Your task to perform on an android device: Open the calendar and show me this week's events? Image 0: 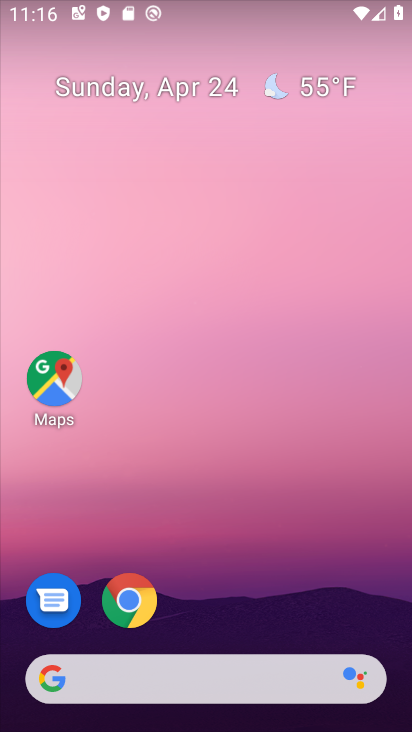
Step 0: click (121, 90)
Your task to perform on an android device: Open the calendar and show me this week's events? Image 1: 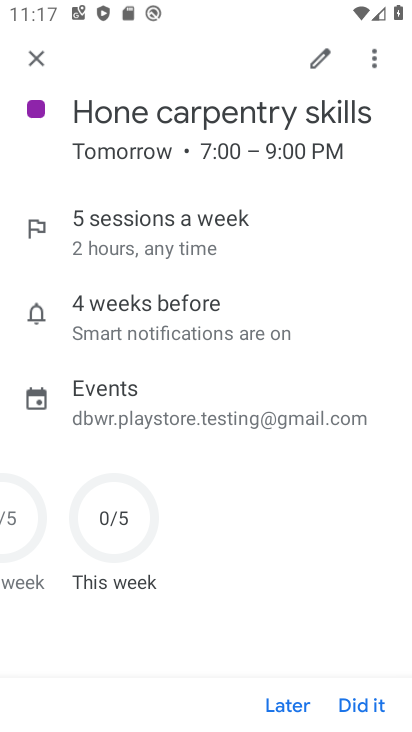
Step 1: click (35, 72)
Your task to perform on an android device: Open the calendar and show me this week's events? Image 2: 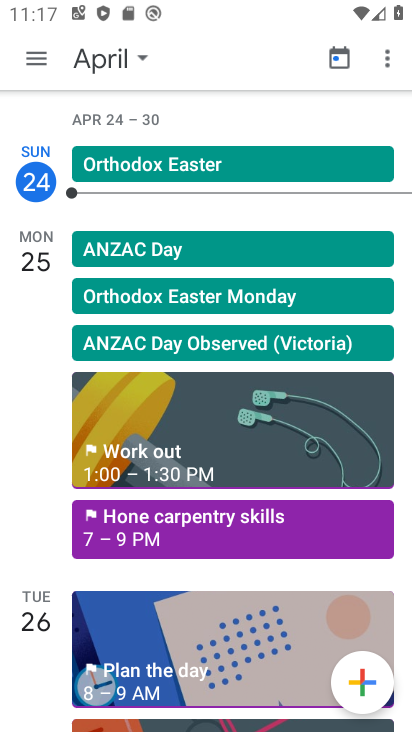
Step 2: click (133, 45)
Your task to perform on an android device: Open the calendar and show me this week's events? Image 3: 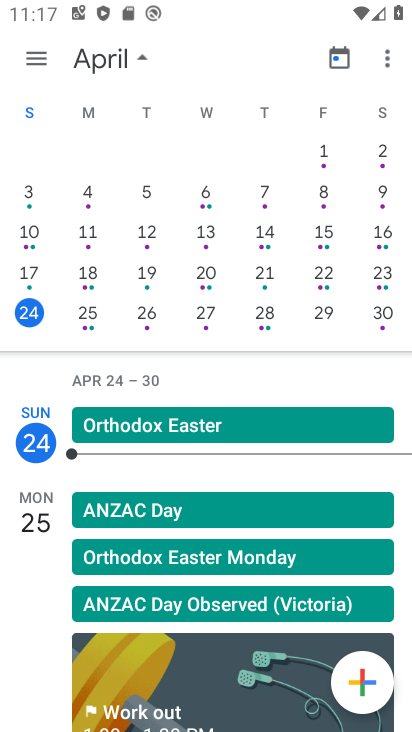
Step 3: click (34, 58)
Your task to perform on an android device: Open the calendar and show me this week's events? Image 4: 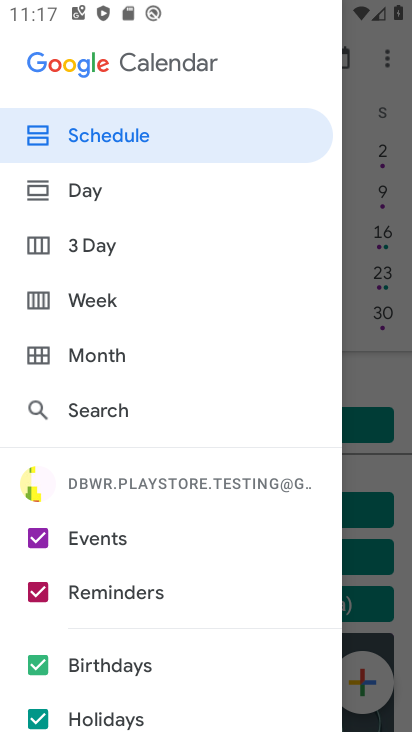
Step 4: click (51, 590)
Your task to perform on an android device: Open the calendar and show me this week's events? Image 5: 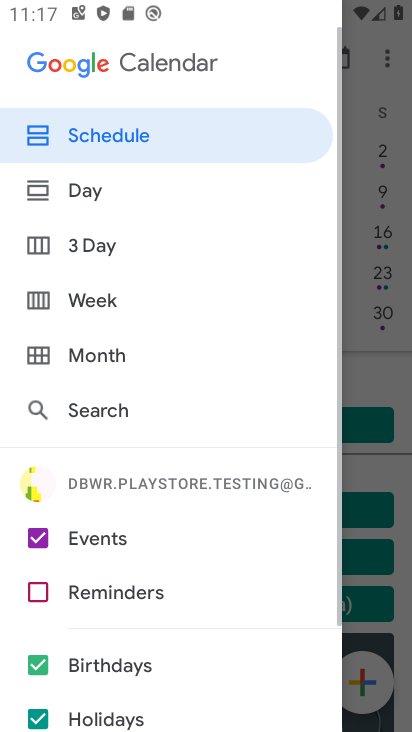
Step 5: click (30, 672)
Your task to perform on an android device: Open the calendar and show me this week's events? Image 6: 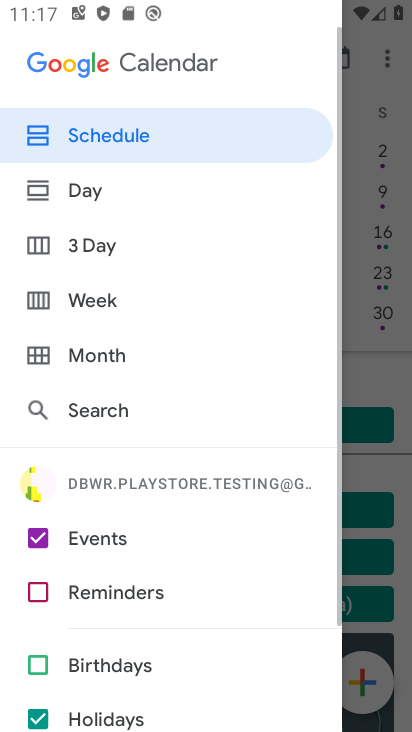
Step 6: click (35, 713)
Your task to perform on an android device: Open the calendar and show me this week's events? Image 7: 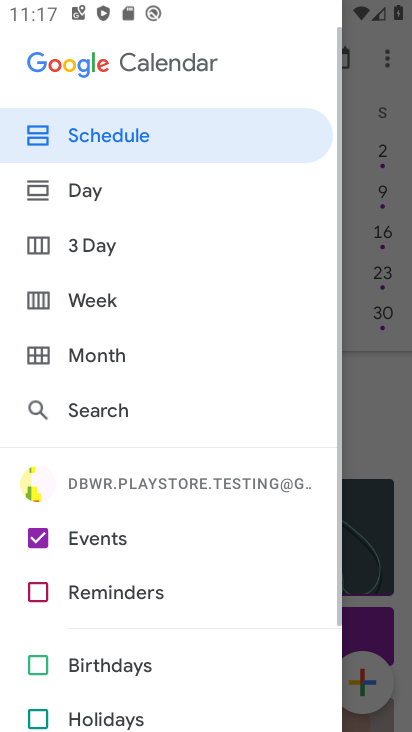
Step 7: click (169, 300)
Your task to perform on an android device: Open the calendar and show me this week's events? Image 8: 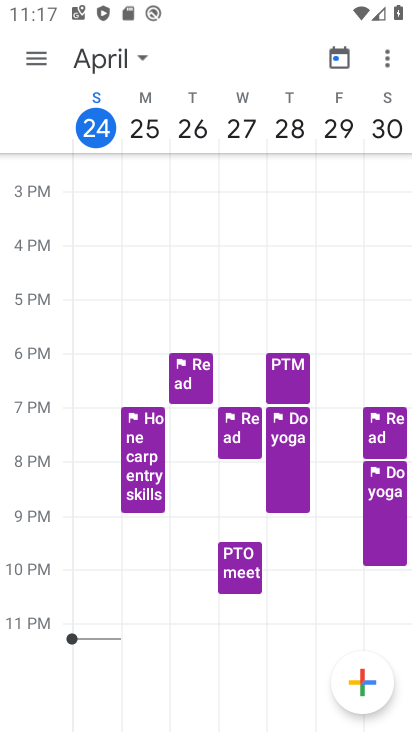
Step 8: task complete